Your task to perform on an android device: When is my next appointment? Image 0: 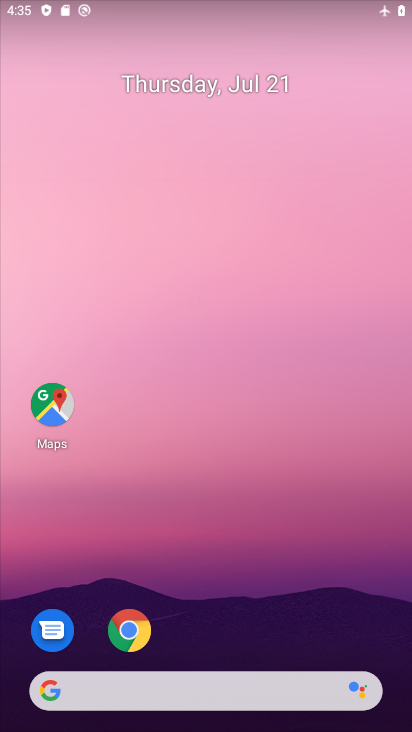
Step 0: drag from (372, 645) to (231, 121)
Your task to perform on an android device: When is my next appointment? Image 1: 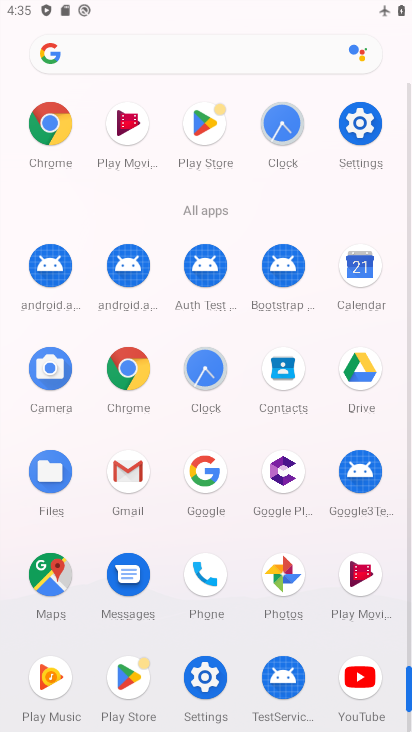
Step 1: click (359, 260)
Your task to perform on an android device: When is my next appointment? Image 2: 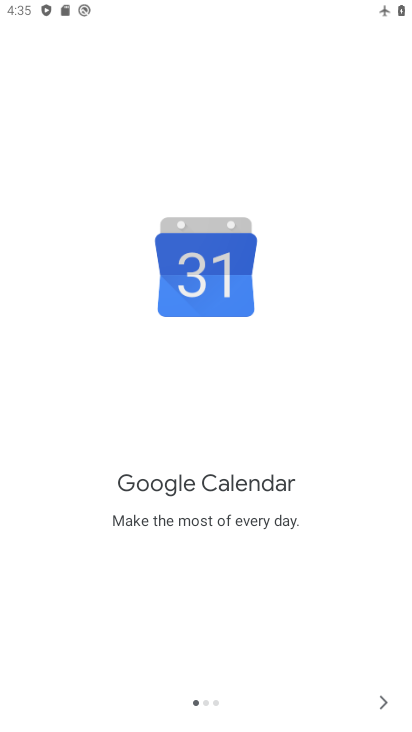
Step 2: click (385, 702)
Your task to perform on an android device: When is my next appointment? Image 3: 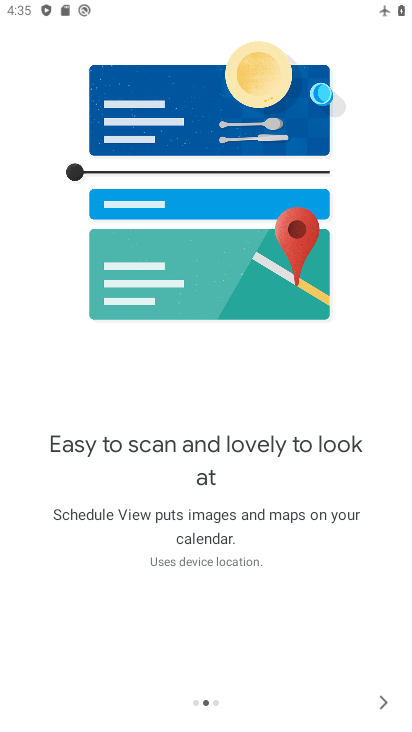
Step 3: click (385, 702)
Your task to perform on an android device: When is my next appointment? Image 4: 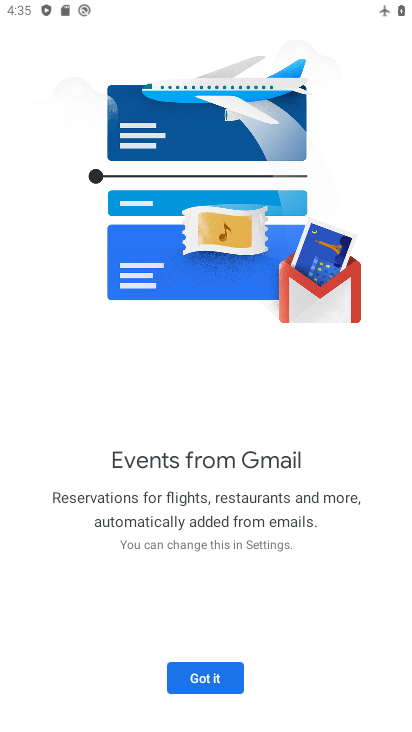
Step 4: click (219, 665)
Your task to perform on an android device: When is my next appointment? Image 5: 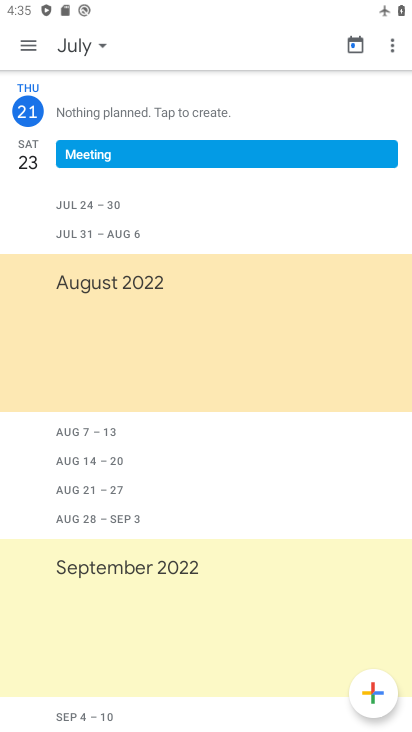
Step 5: click (30, 45)
Your task to perform on an android device: When is my next appointment? Image 6: 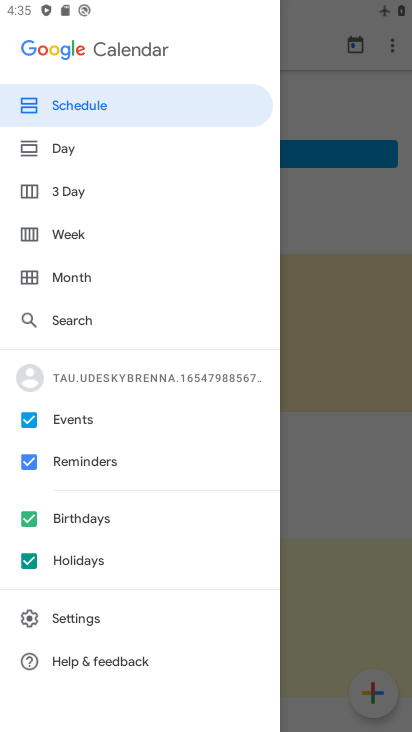
Step 6: click (93, 106)
Your task to perform on an android device: When is my next appointment? Image 7: 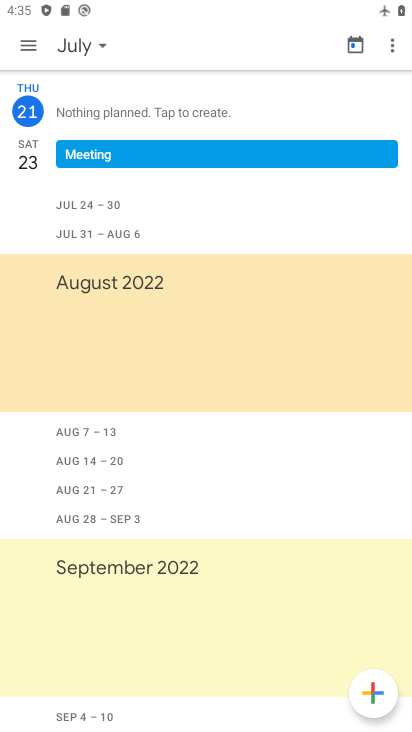
Step 7: task complete